Your task to perform on an android device: open app "Pluto TV - Live TV and Movies" (install if not already installed) and enter user name: "wools@yahoo.com" and password: "misplacing" Image 0: 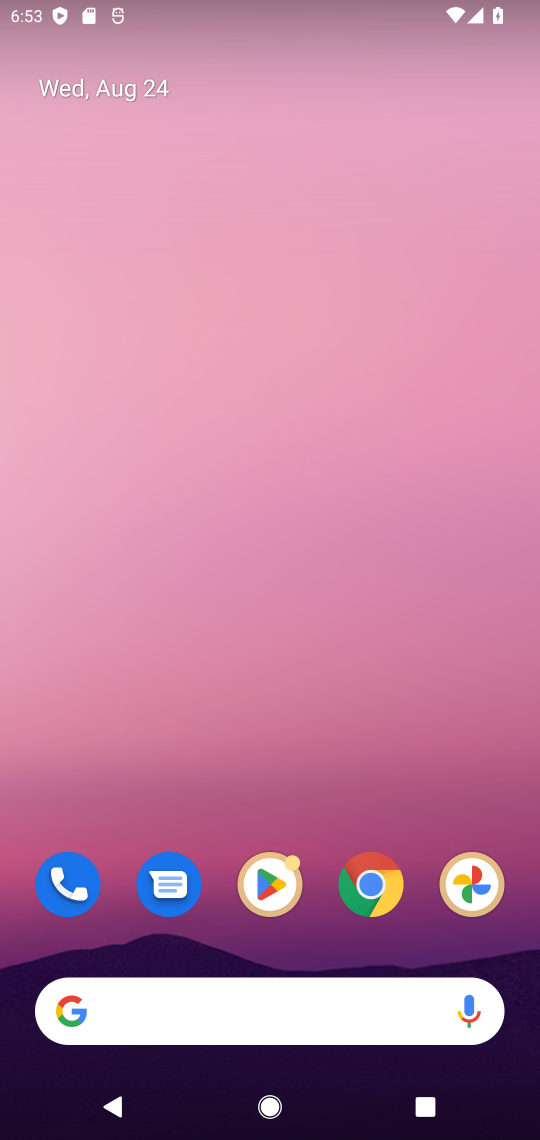
Step 0: click (273, 887)
Your task to perform on an android device: open app "Pluto TV - Live TV and Movies" (install if not already installed) and enter user name: "wools@yahoo.com" and password: "misplacing" Image 1: 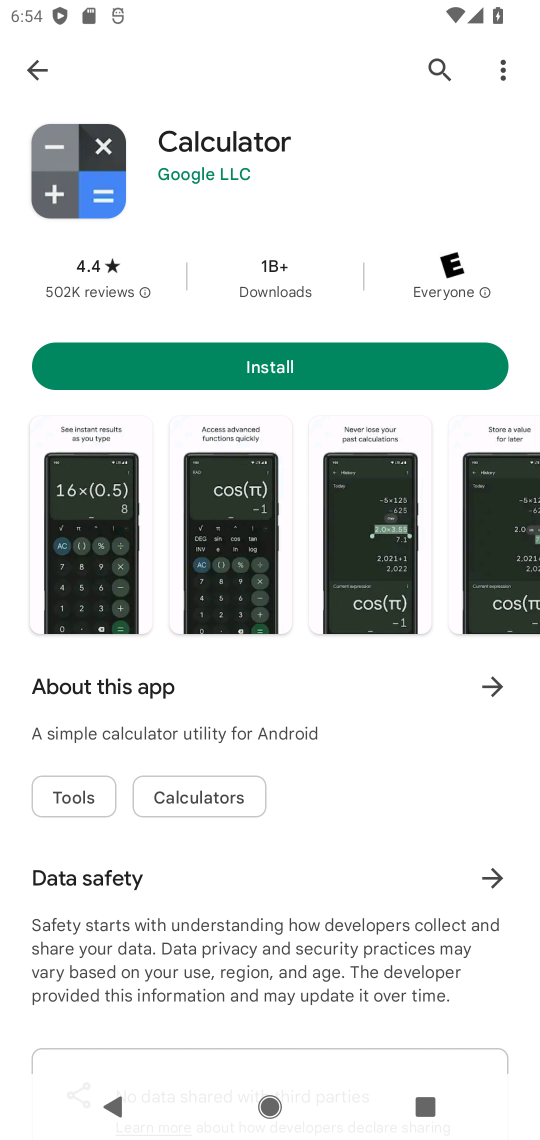
Step 1: click (451, 51)
Your task to perform on an android device: open app "Pluto TV - Live TV and Movies" (install if not already installed) and enter user name: "wools@yahoo.com" and password: "misplacing" Image 2: 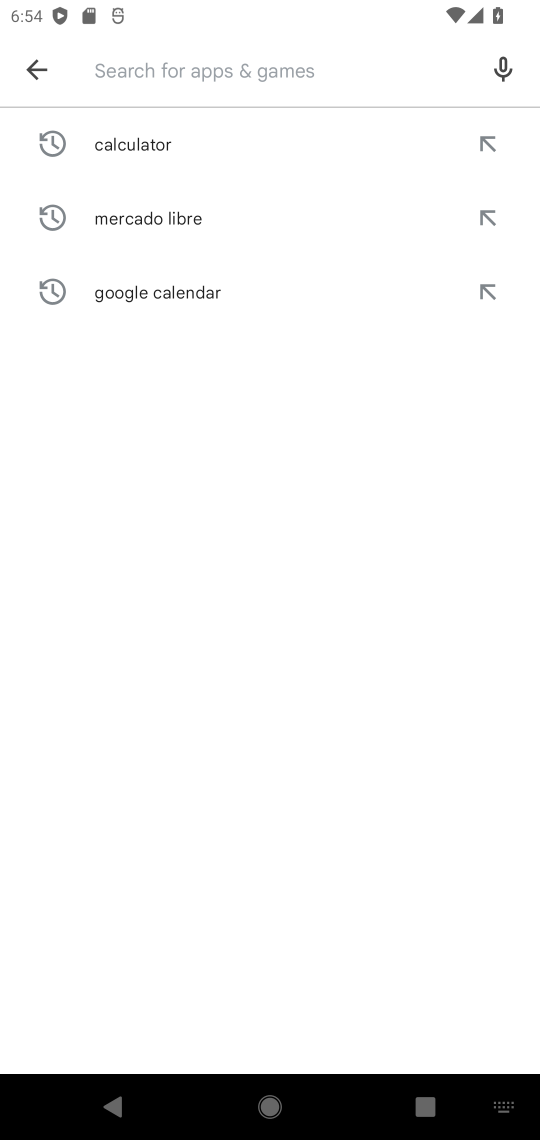
Step 2: type "pluto tv"
Your task to perform on an android device: open app "Pluto TV - Live TV and Movies" (install if not already installed) and enter user name: "wools@yahoo.com" and password: "misplacing" Image 3: 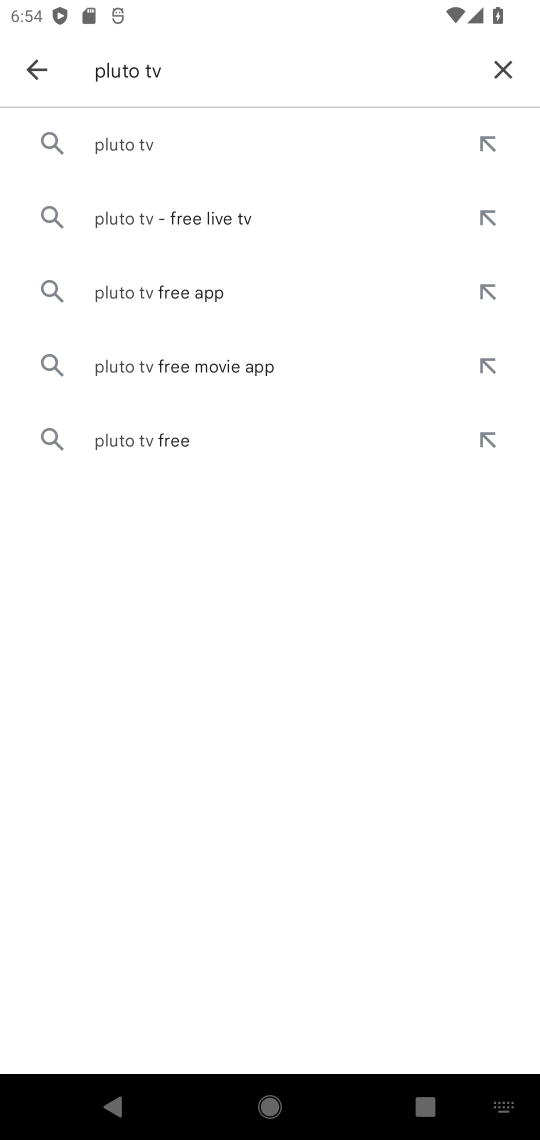
Step 3: click (109, 147)
Your task to perform on an android device: open app "Pluto TV - Live TV and Movies" (install if not already installed) and enter user name: "wools@yahoo.com" and password: "misplacing" Image 4: 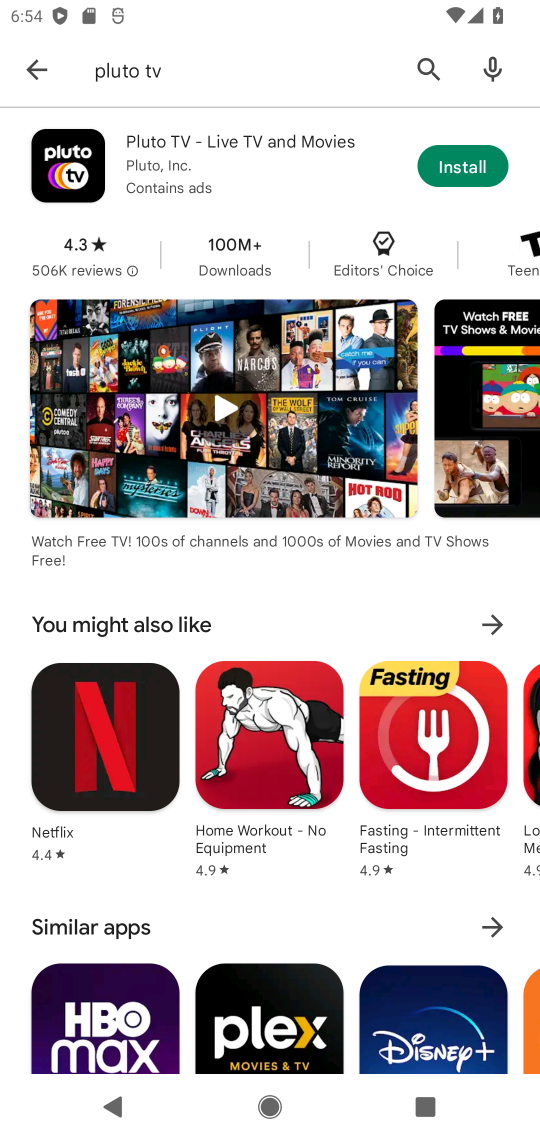
Step 4: click (452, 169)
Your task to perform on an android device: open app "Pluto TV - Live TV and Movies" (install if not already installed) and enter user name: "wools@yahoo.com" and password: "misplacing" Image 5: 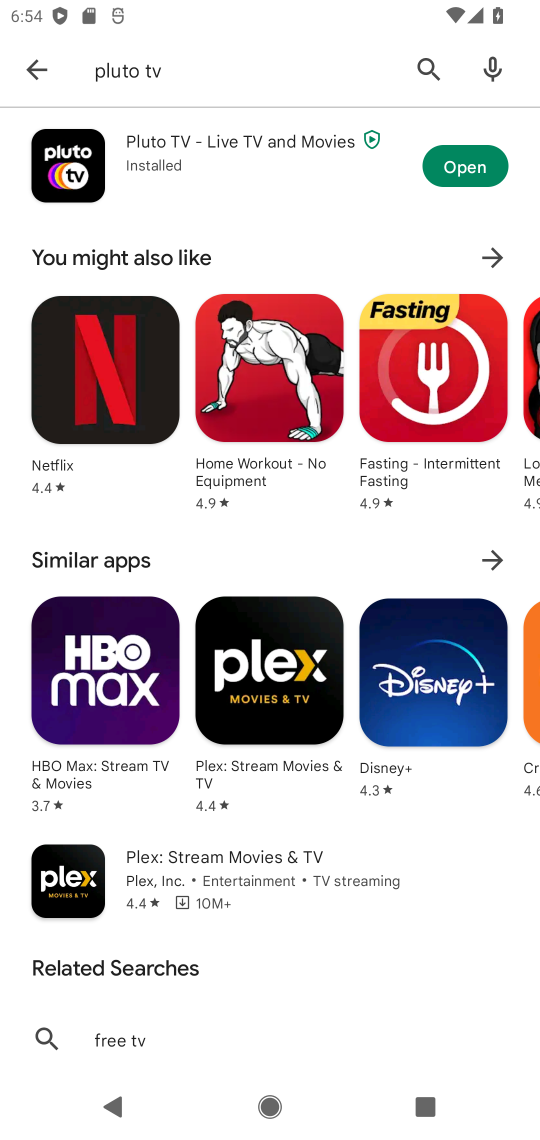
Step 5: click (473, 170)
Your task to perform on an android device: open app "Pluto TV - Live TV and Movies" (install if not already installed) and enter user name: "wools@yahoo.com" and password: "misplacing" Image 6: 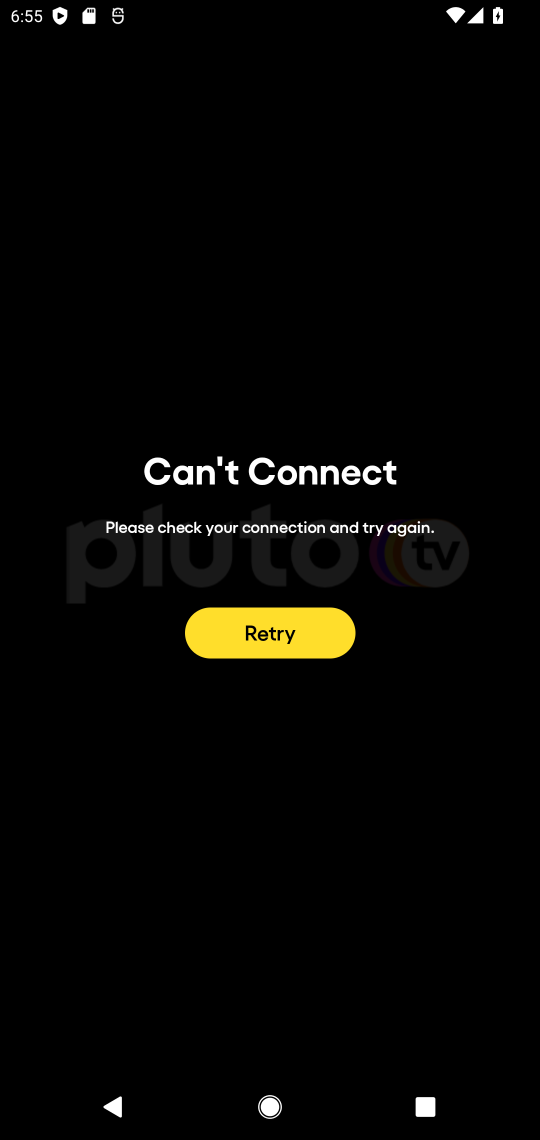
Step 6: task complete